Your task to perform on an android device: Open my contact list Image 0: 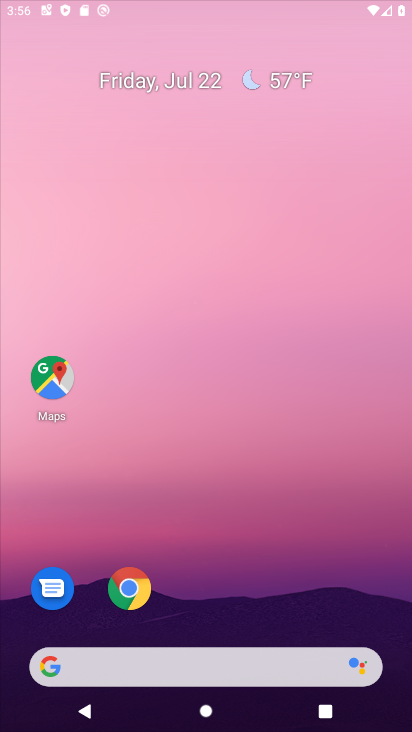
Step 0: press home button
Your task to perform on an android device: Open my contact list Image 1: 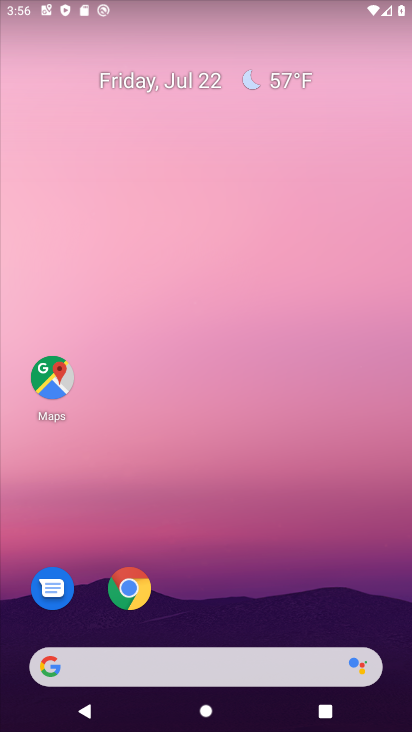
Step 1: drag from (254, 635) to (225, 122)
Your task to perform on an android device: Open my contact list Image 2: 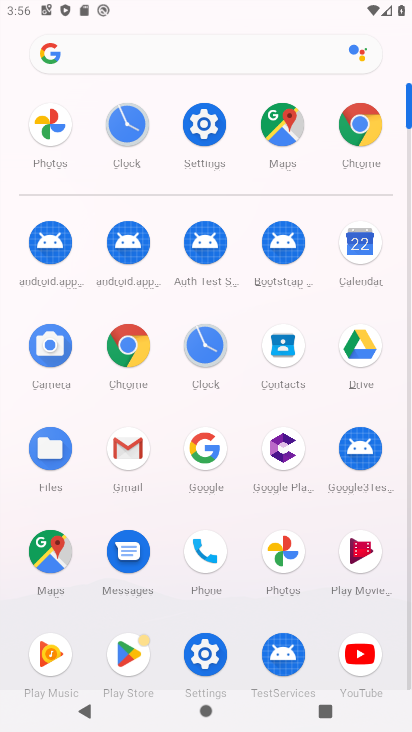
Step 2: click (198, 550)
Your task to perform on an android device: Open my contact list Image 3: 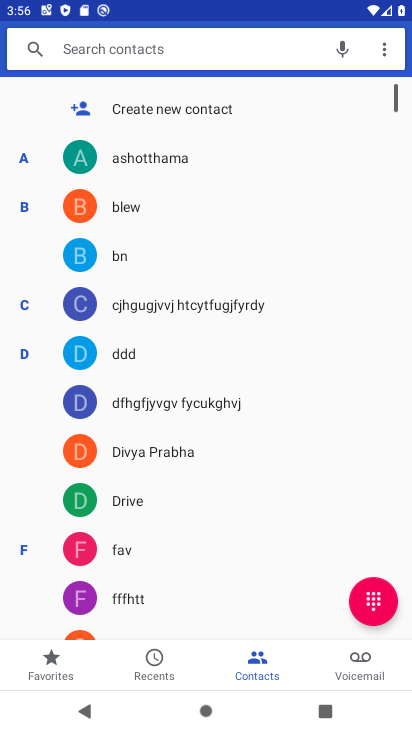
Step 3: click (247, 647)
Your task to perform on an android device: Open my contact list Image 4: 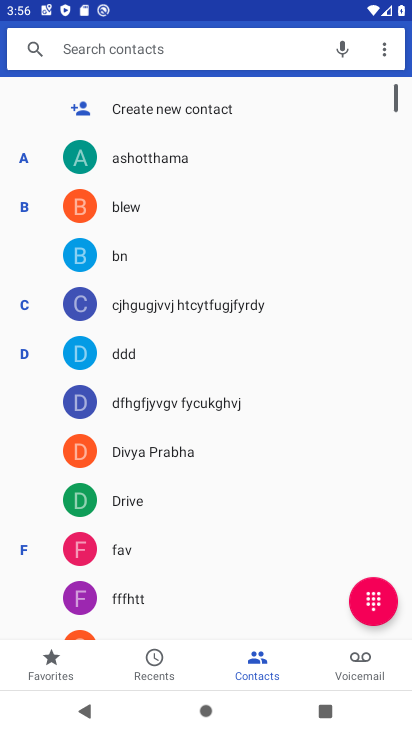
Step 4: task complete